Your task to perform on an android device: set default search engine in the chrome app Image 0: 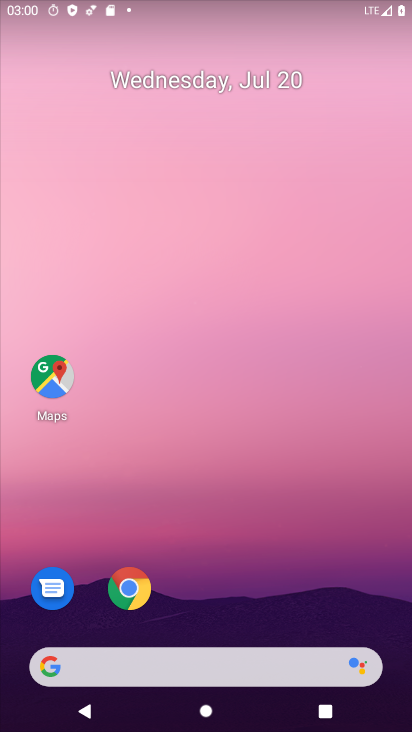
Step 0: click (345, 0)
Your task to perform on an android device: set default search engine in the chrome app Image 1: 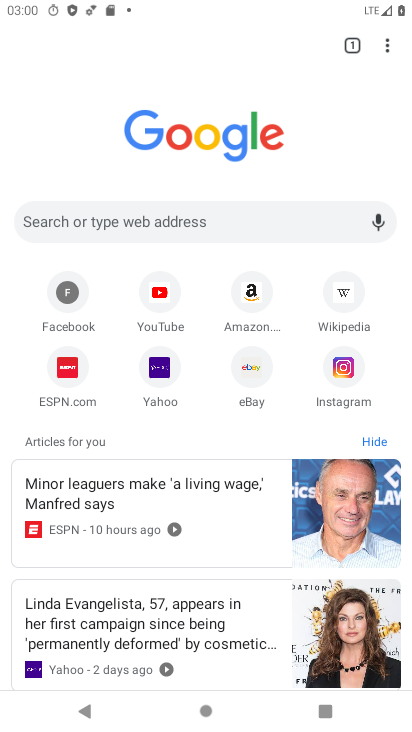
Step 1: drag from (393, 41) to (275, 388)
Your task to perform on an android device: set default search engine in the chrome app Image 2: 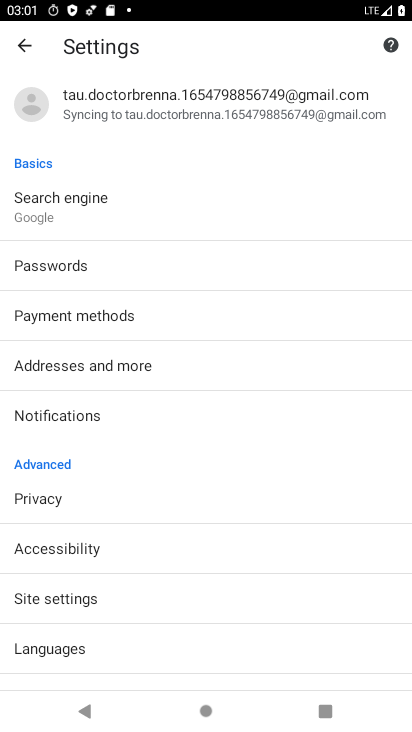
Step 2: click (80, 592)
Your task to perform on an android device: set default search engine in the chrome app Image 3: 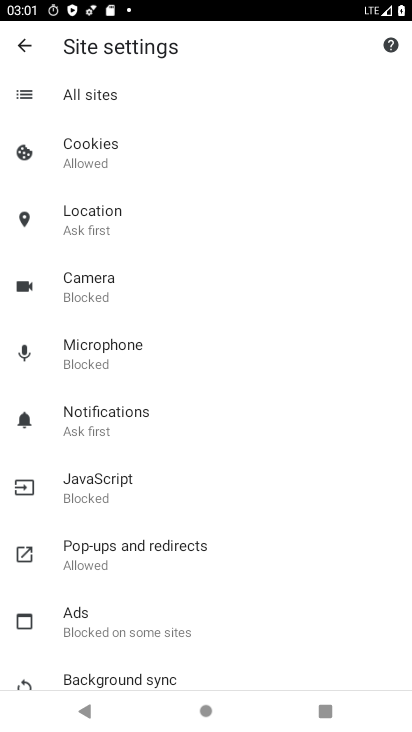
Step 3: click (29, 36)
Your task to perform on an android device: set default search engine in the chrome app Image 4: 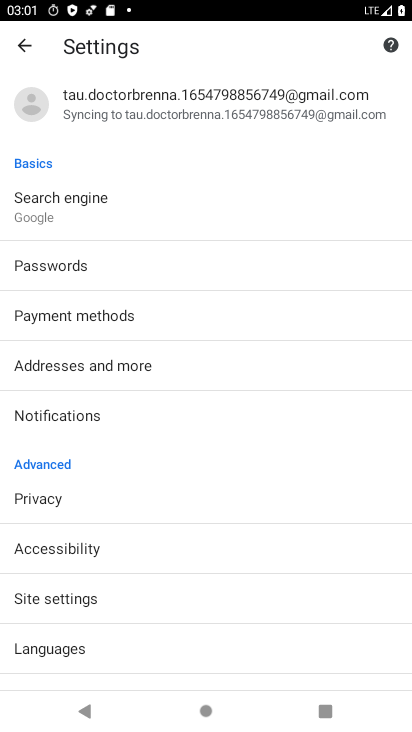
Step 4: click (112, 204)
Your task to perform on an android device: set default search engine in the chrome app Image 5: 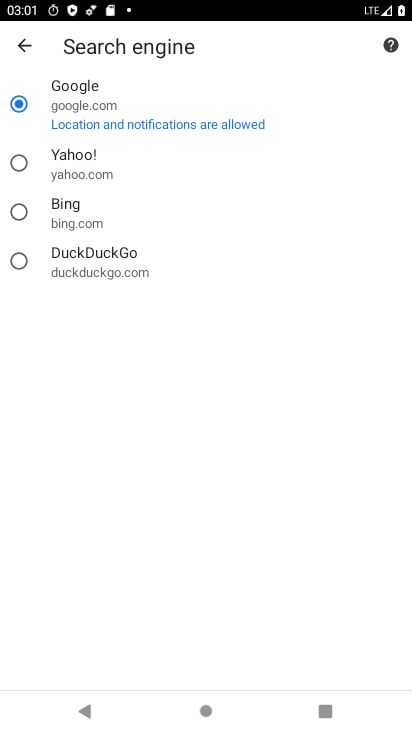
Step 5: task complete